Your task to perform on an android device: turn off translation in the chrome app Image 0: 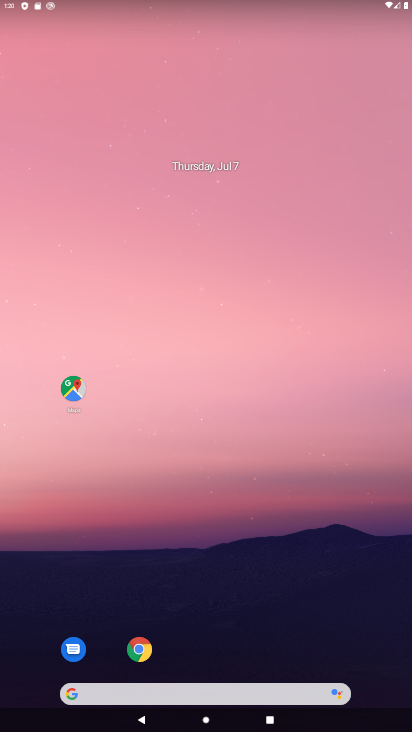
Step 0: drag from (247, 612) to (206, 60)
Your task to perform on an android device: turn off translation in the chrome app Image 1: 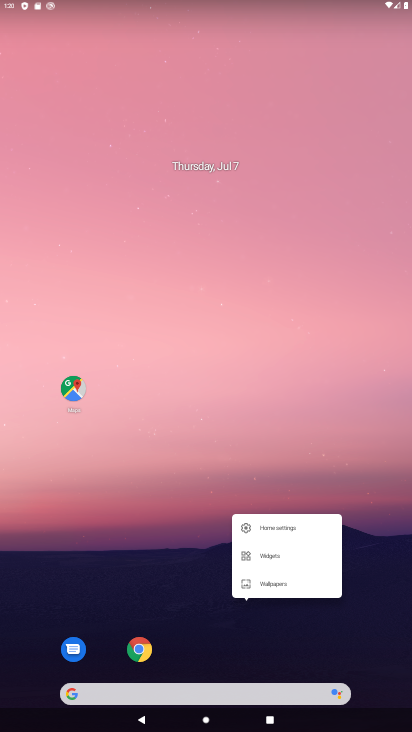
Step 1: click (220, 628)
Your task to perform on an android device: turn off translation in the chrome app Image 2: 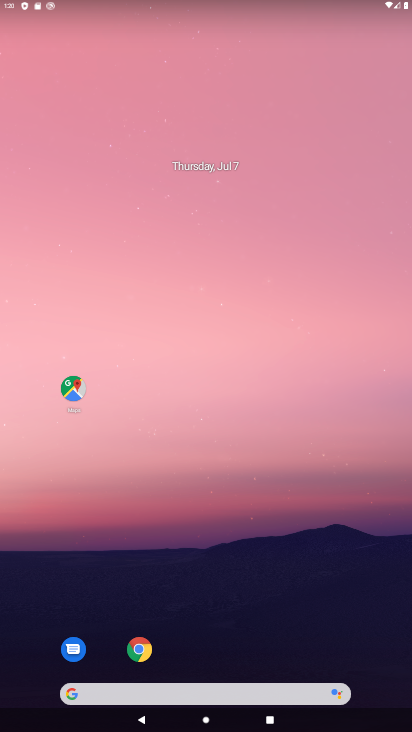
Step 2: drag from (280, 660) to (200, 84)
Your task to perform on an android device: turn off translation in the chrome app Image 3: 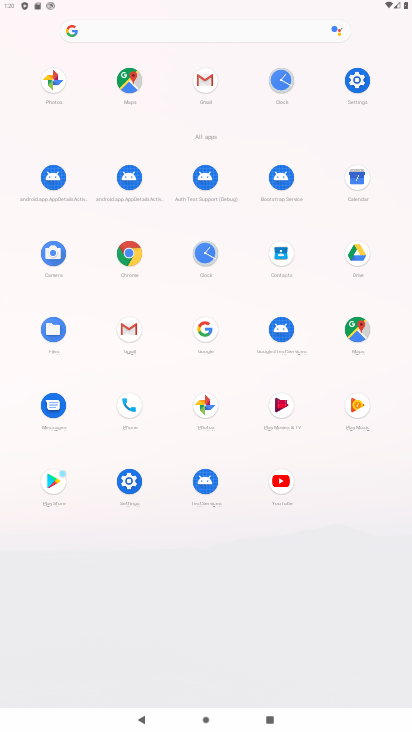
Step 3: click (128, 247)
Your task to perform on an android device: turn off translation in the chrome app Image 4: 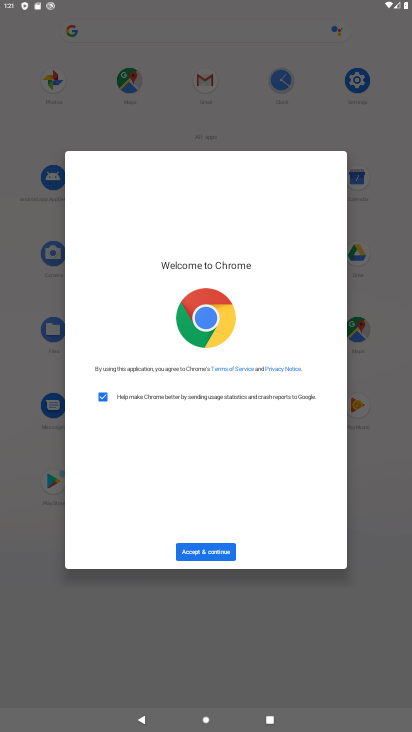
Step 4: click (199, 552)
Your task to perform on an android device: turn off translation in the chrome app Image 5: 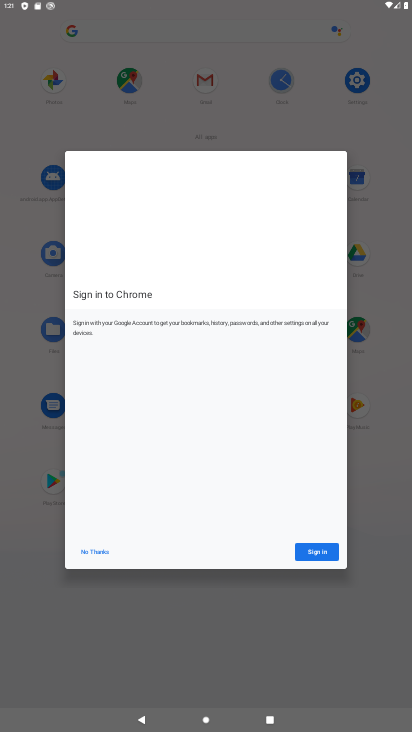
Step 5: click (335, 547)
Your task to perform on an android device: turn off translation in the chrome app Image 6: 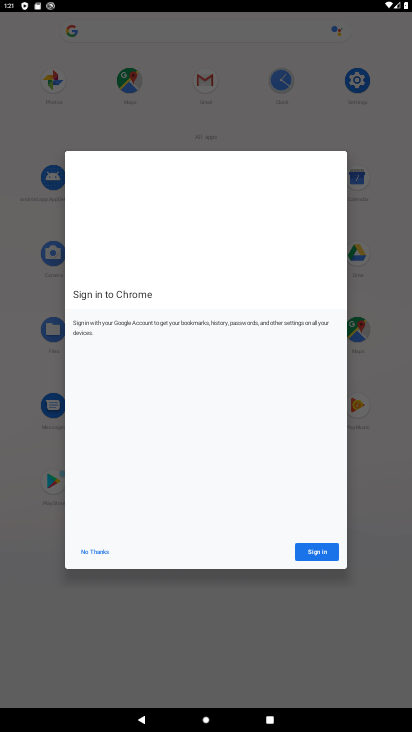
Step 6: click (333, 547)
Your task to perform on an android device: turn off translation in the chrome app Image 7: 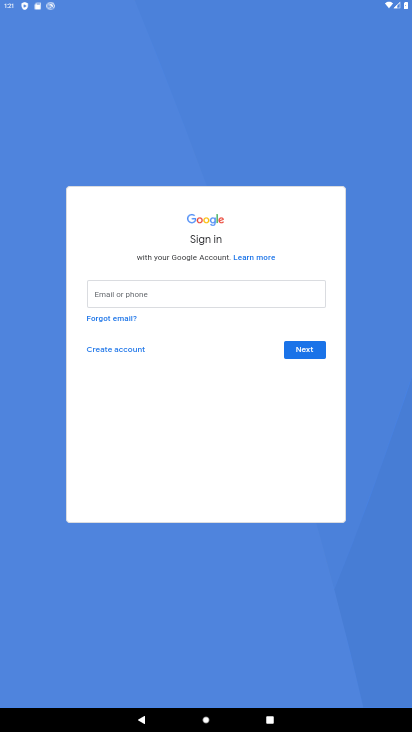
Step 7: press home button
Your task to perform on an android device: turn off translation in the chrome app Image 8: 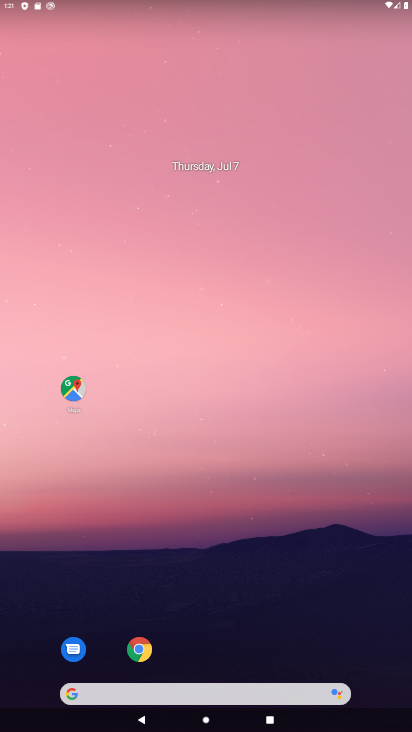
Step 8: click (138, 658)
Your task to perform on an android device: turn off translation in the chrome app Image 9: 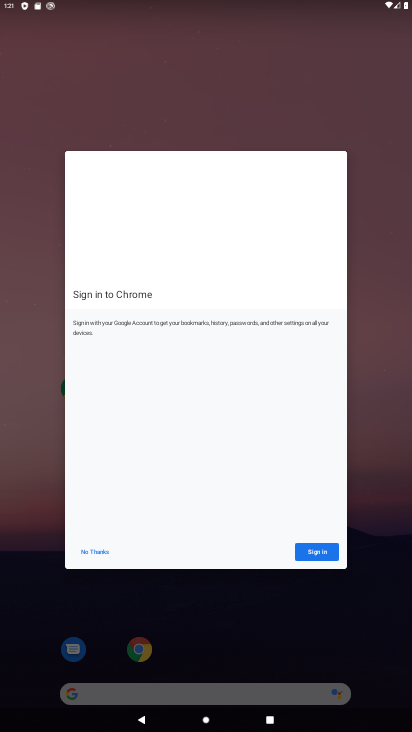
Step 9: click (94, 554)
Your task to perform on an android device: turn off translation in the chrome app Image 10: 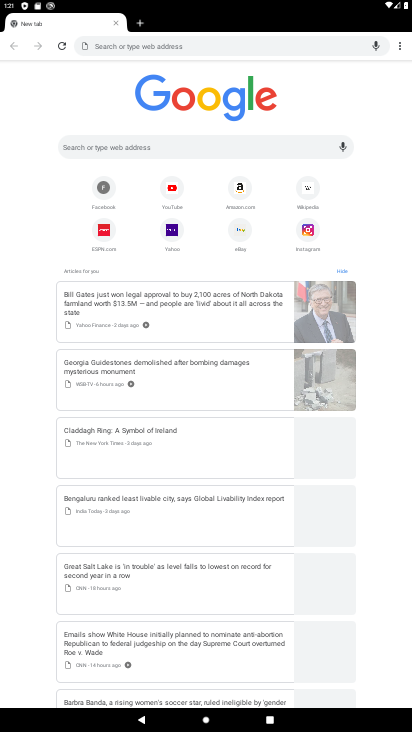
Step 10: drag from (398, 44) to (292, 212)
Your task to perform on an android device: turn off translation in the chrome app Image 11: 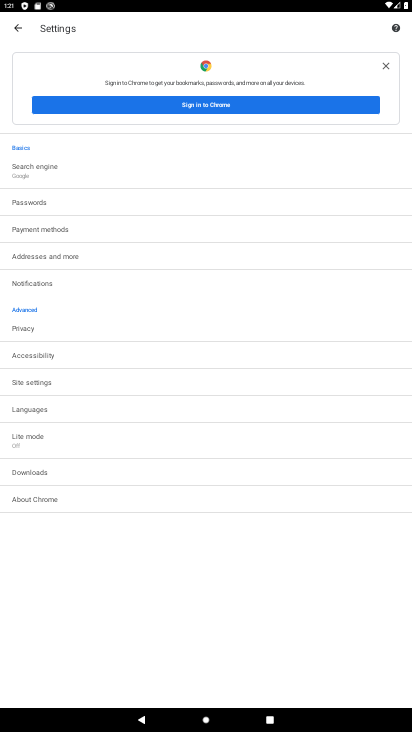
Step 11: click (48, 408)
Your task to perform on an android device: turn off translation in the chrome app Image 12: 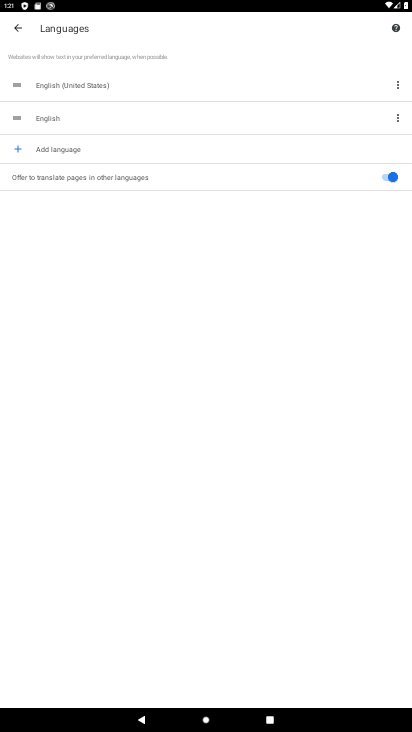
Step 12: click (376, 177)
Your task to perform on an android device: turn off translation in the chrome app Image 13: 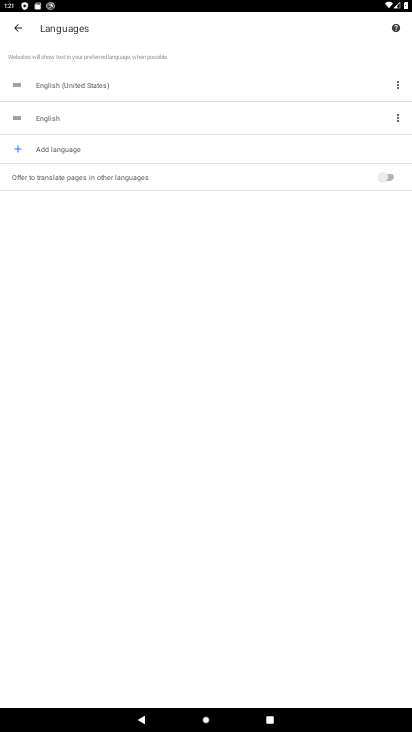
Step 13: task complete